Your task to perform on an android device: Open Google Maps Image 0: 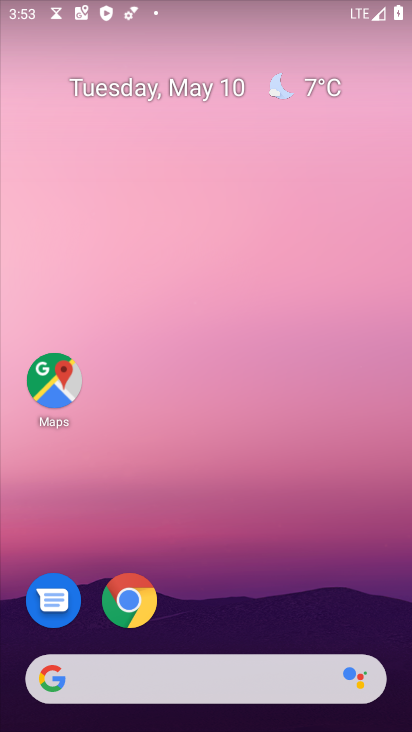
Step 0: click (48, 382)
Your task to perform on an android device: Open Google Maps Image 1: 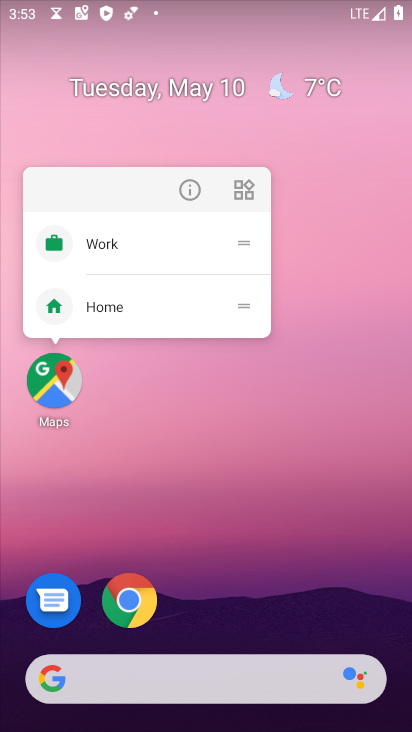
Step 1: click (79, 349)
Your task to perform on an android device: Open Google Maps Image 2: 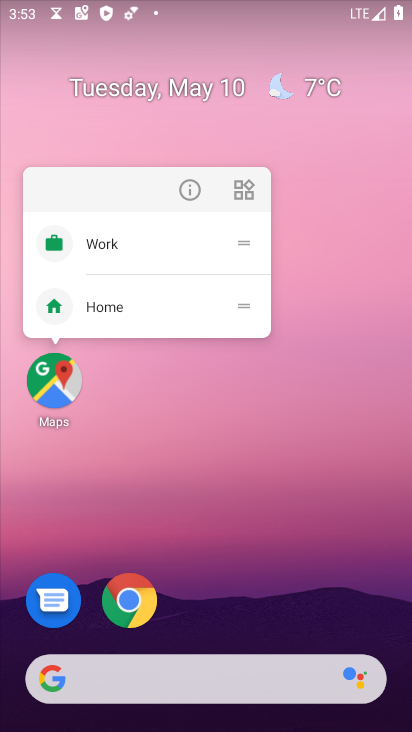
Step 2: click (51, 381)
Your task to perform on an android device: Open Google Maps Image 3: 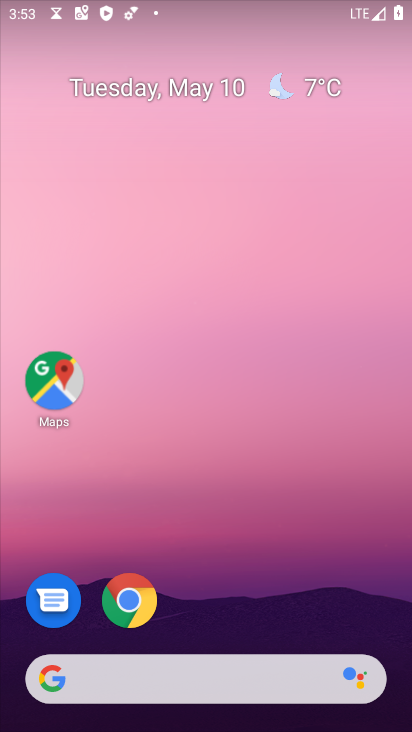
Step 3: click (51, 381)
Your task to perform on an android device: Open Google Maps Image 4: 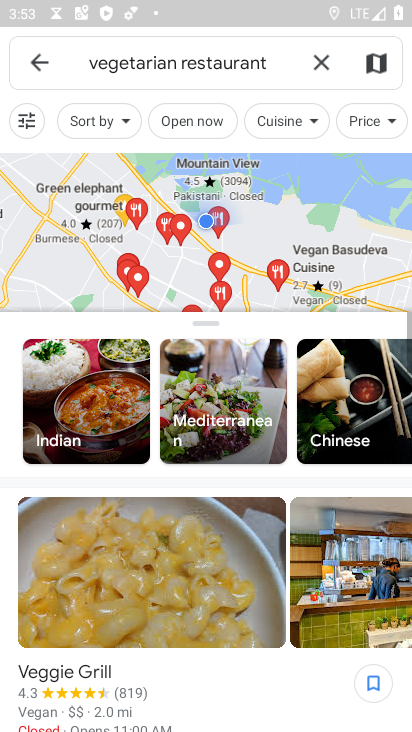
Step 4: task complete